Your task to perform on an android device: Open battery settings Image 0: 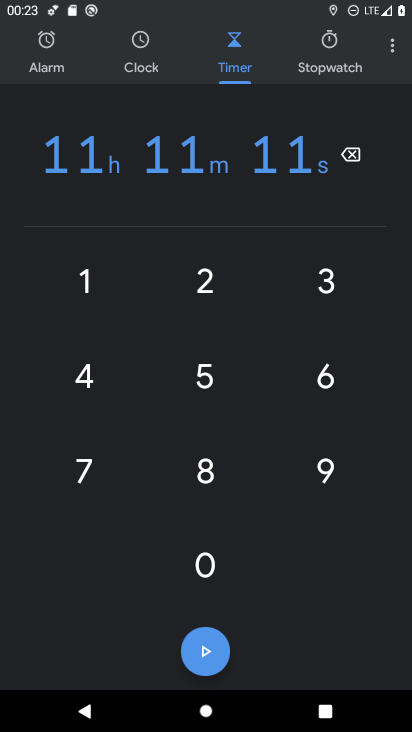
Step 0: press home button
Your task to perform on an android device: Open battery settings Image 1: 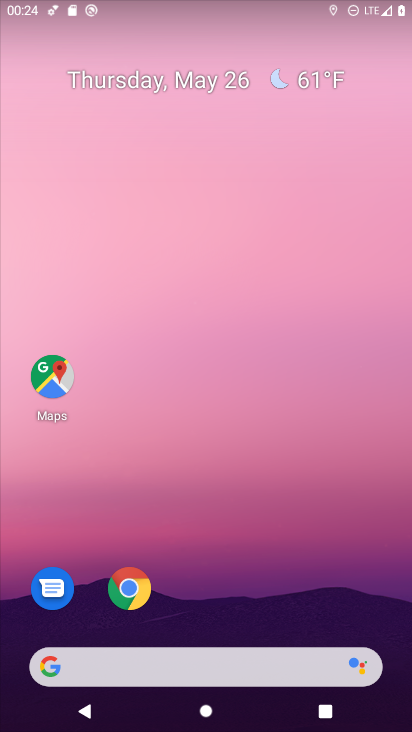
Step 1: drag from (274, 518) to (131, 150)
Your task to perform on an android device: Open battery settings Image 2: 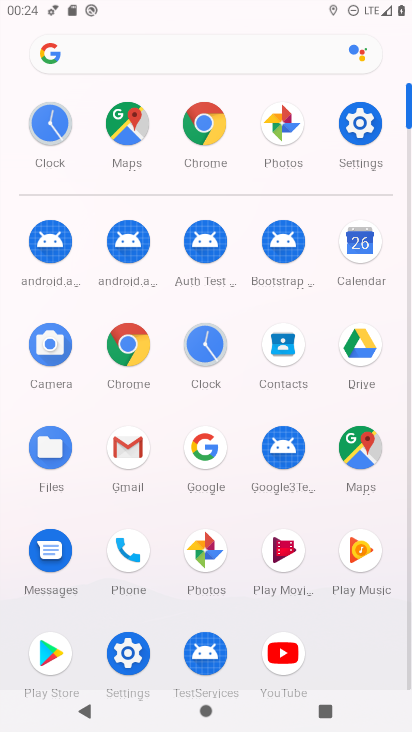
Step 2: click (360, 112)
Your task to perform on an android device: Open battery settings Image 3: 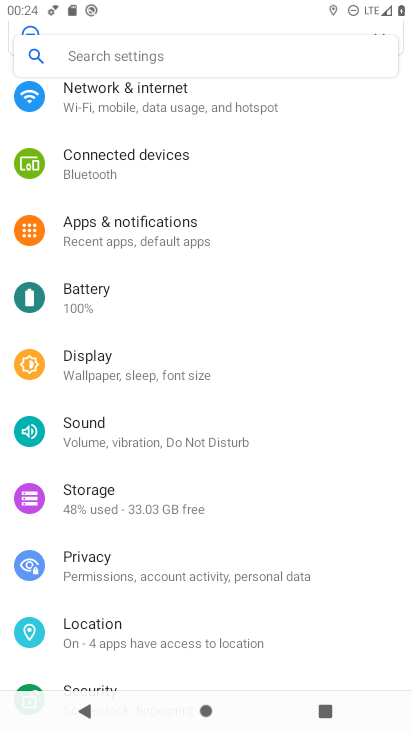
Step 3: click (80, 293)
Your task to perform on an android device: Open battery settings Image 4: 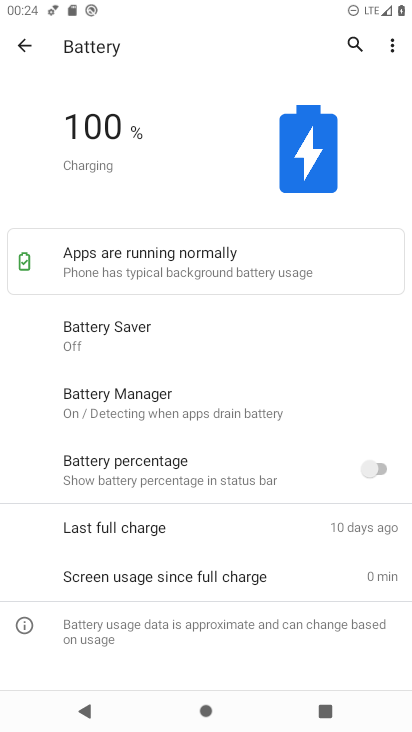
Step 4: task complete